Your task to perform on an android device: Turn off the flashlight Image 0: 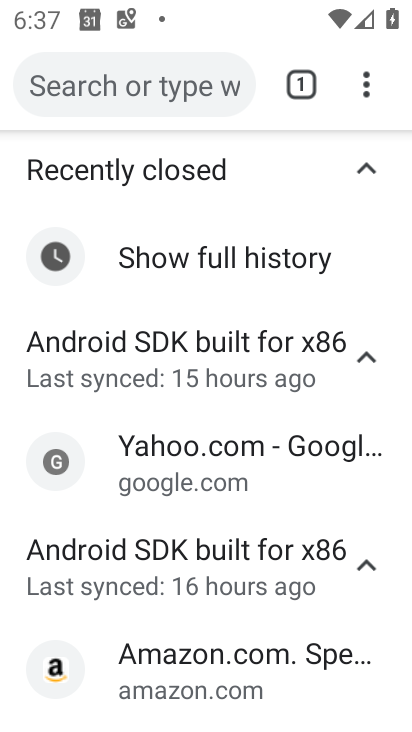
Step 0: press home button
Your task to perform on an android device: Turn off the flashlight Image 1: 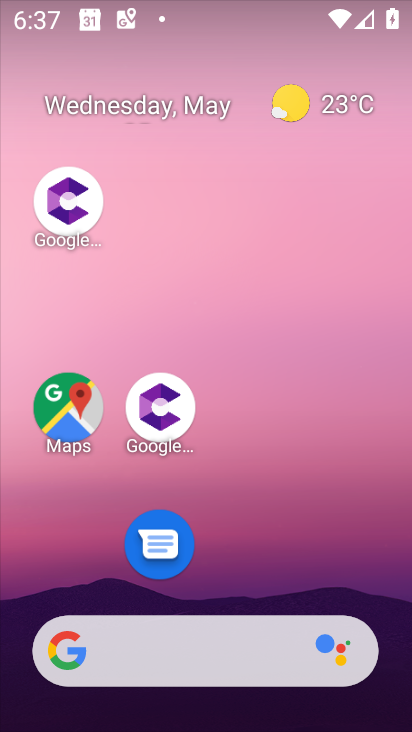
Step 1: drag from (310, 517) to (198, 0)
Your task to perform on an android device: Turn off the flashlight Image 2: 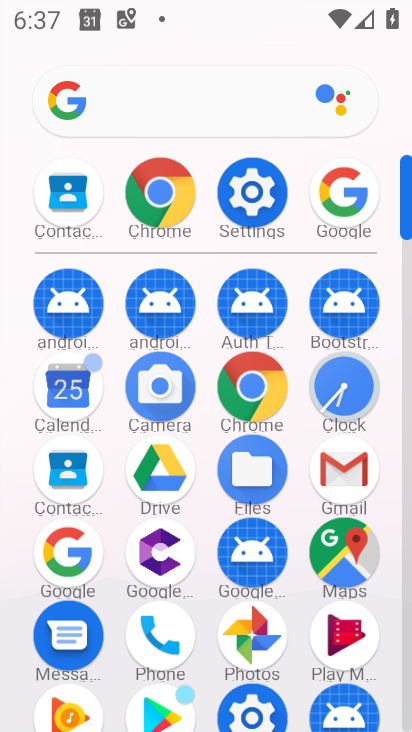
Step 2: click (248, 192)
Your task to perform on an android device: Turn off the flashlight Image 3: 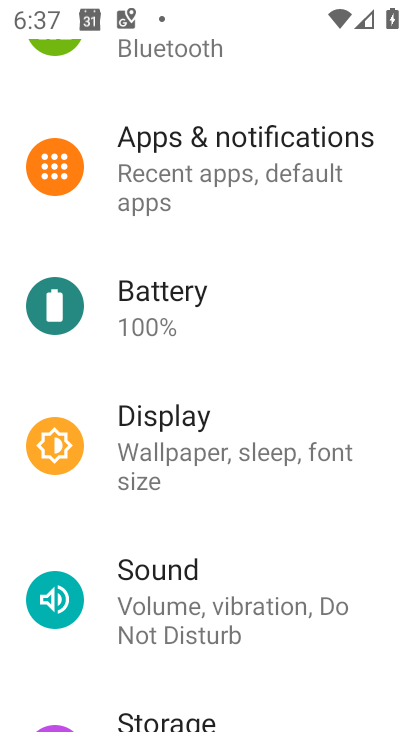
Step 3: click (163, 431)
Your task to perform on an android device: Turn off the flashlight Image 4: 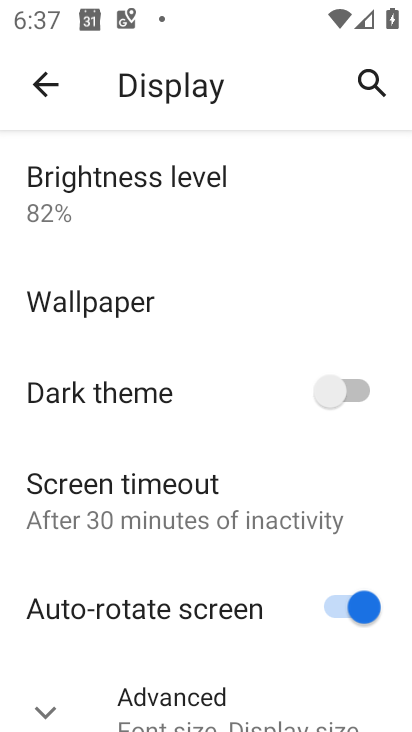
Step 4: task complete